Your task to perform on an android device: Open location settings Image 0: 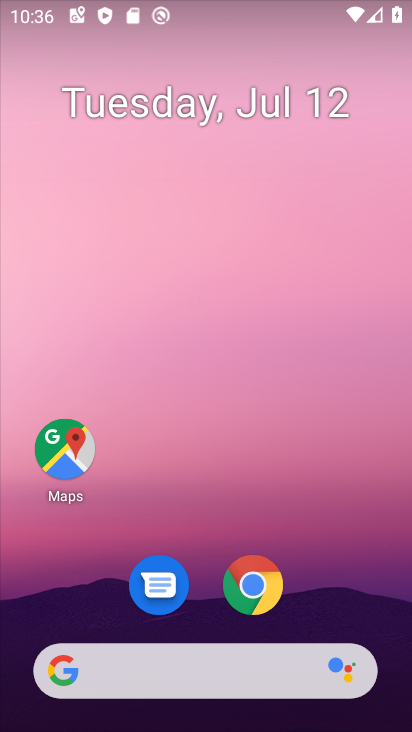
Step 0: drag from (321, 591) to (316, 44)
Your task to perform on an android device: Open location settings Image 1: 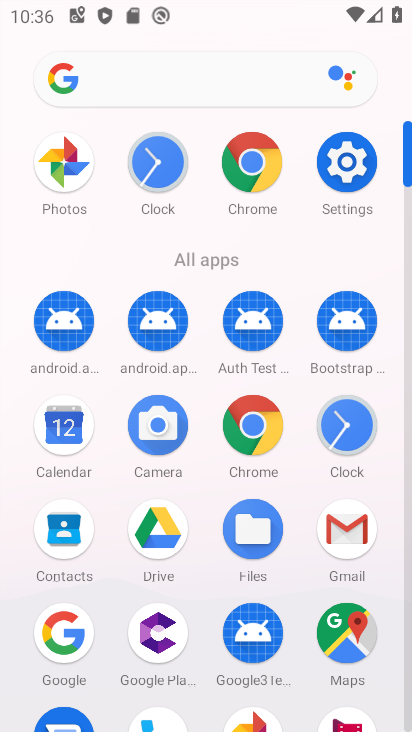
Step 1: click (347, 162)
Your task to perform on an android device: Open location settings Image 2: 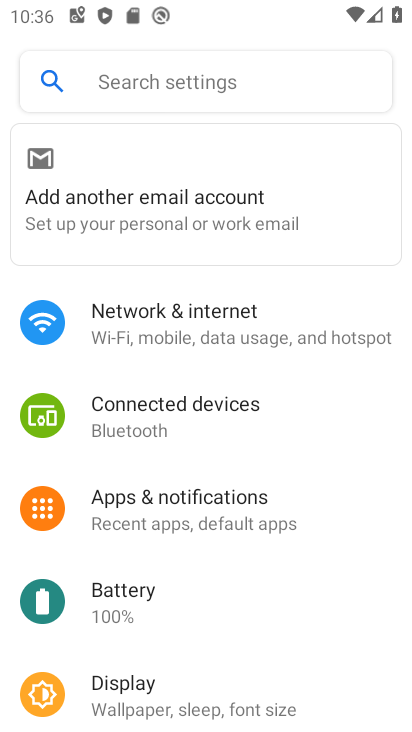
Step 2: drag from (231, 595) to (225, 72)
Your task to perform on an android device: Open location settings Image 3: 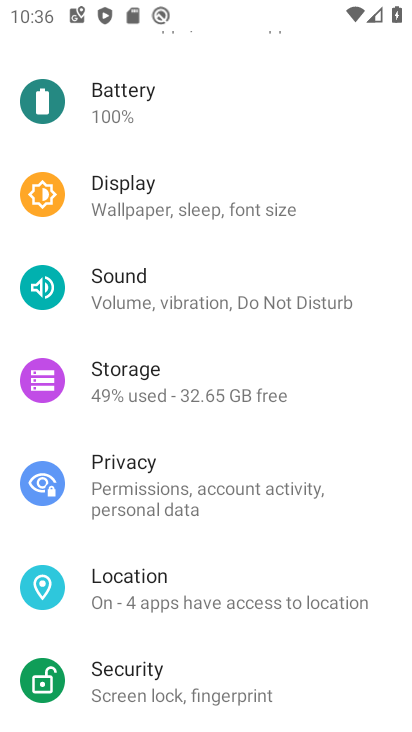
Step 3: click (225, 589)
Your task to perform on an android device: Open location settings Image 4: 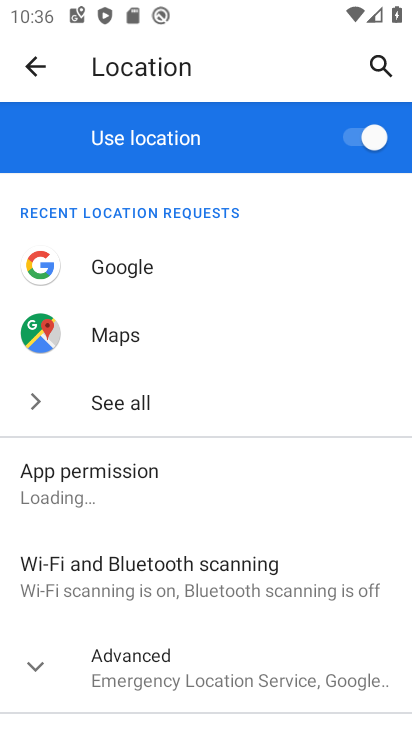
Step 4: task complete